Your task to perform on an android device: change the upload size in google photos Image 0: 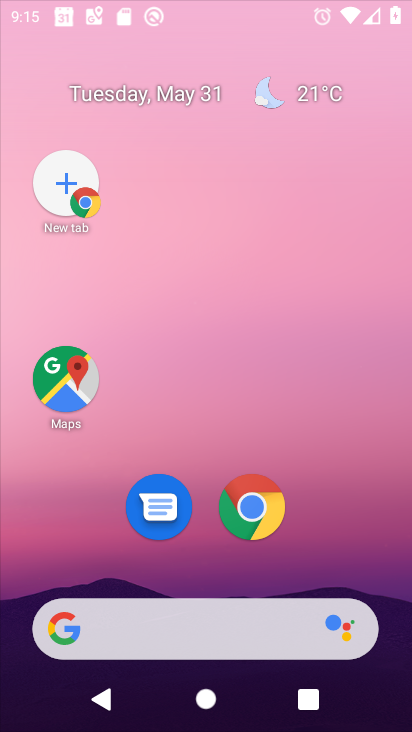
Step 0: drag from (218, 251) to (207, 109)
Your task to perform on an android device: change the upload size in google photos Image 1: 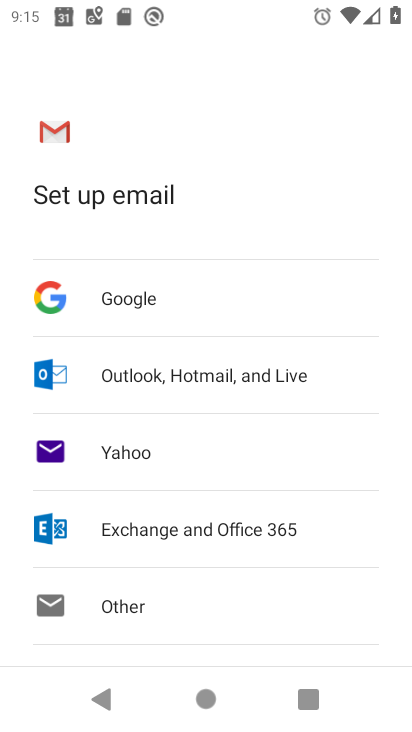
Step 1: press back button
Your task to perform on an android device: change the upload size in google photos Image 2: 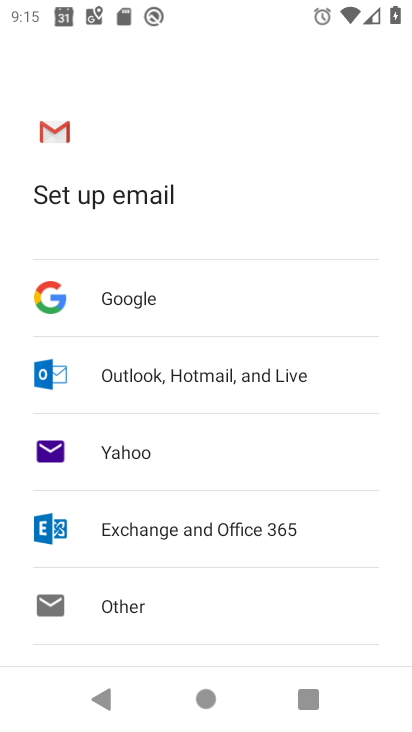
Step 2: press back button
Your task to perform on an android device: change the upload size in google photos Image 3: 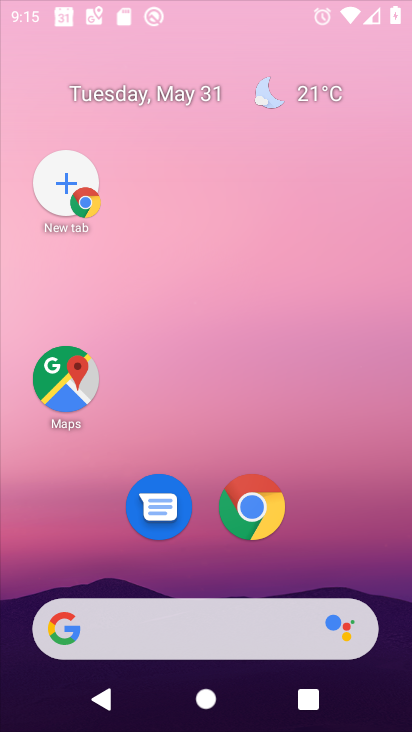
Step 3: press back button
Your task to perform on an android device: change the upload size in google photos Image 4: 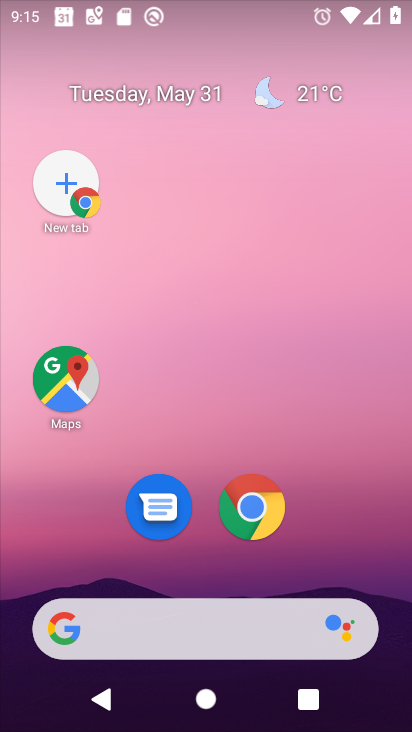
Step 4: drag from (233, 540) to (177, 119)
Your task to perform on an android device: change the upload size in google photos Image 5: 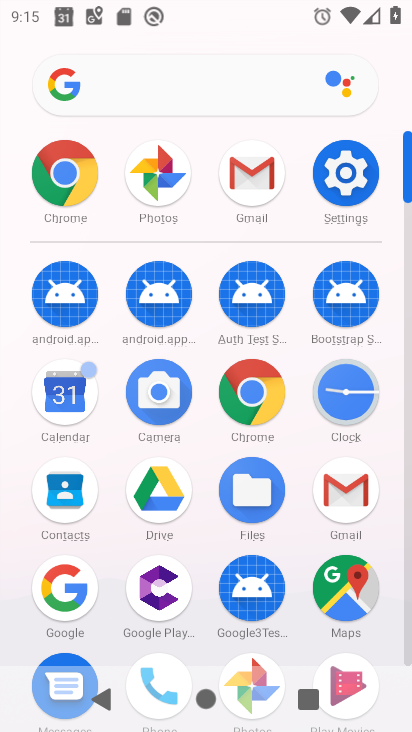
Step 5: drag from (312, 537) to (259, 22)
Your task to perform on an android device: change the upload size in google photos Image 6: 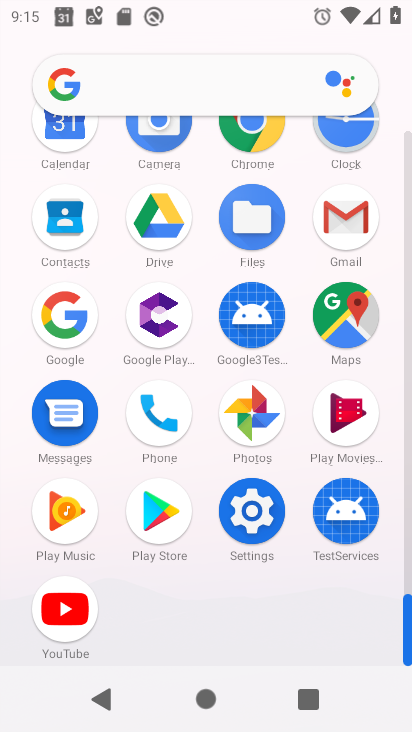
Step 6: click (254, 414)
Your task to perform on an android device: change the upload size in google photos Image 7: 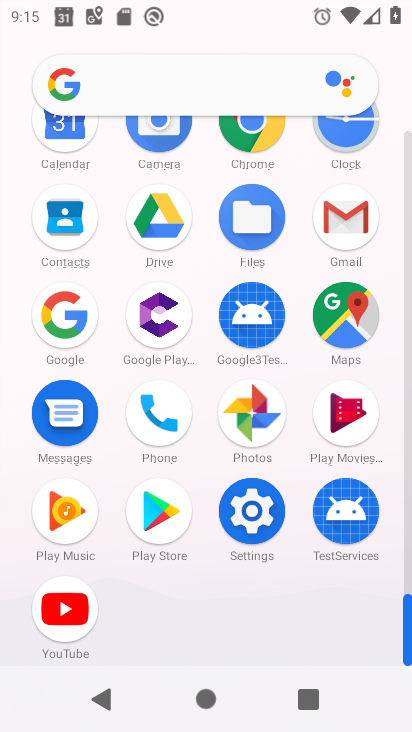
Step 7: click (254, 415)
Your task to perform on an android device: change the upload size in google photos Image 8: 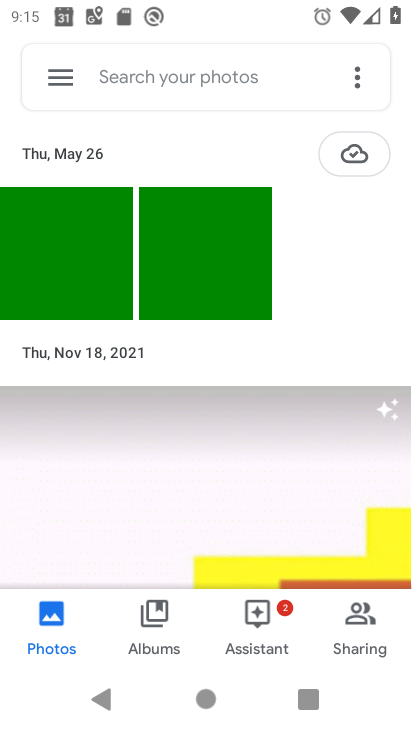
Step 8: press back button
Your task to perform on an android device: change the upload size in google photos Image 9: 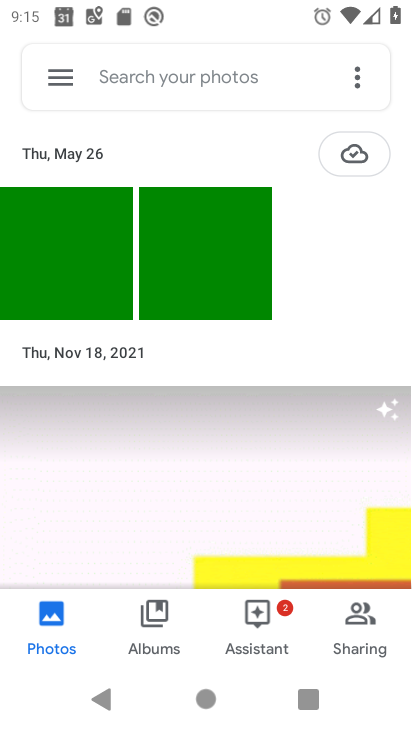
Step 9: press back button
Your task to perform on an android device: change the upload size in google photos Image 10: 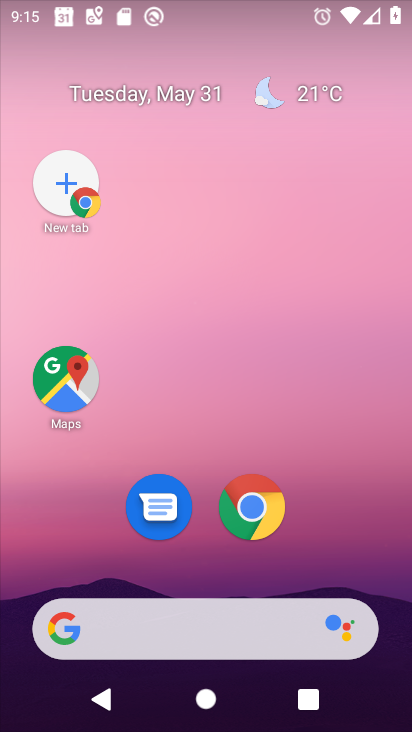
Step 10: drag from (251, 651) to (103, 0)
Your task to perform on an android device: change the upload size in google photos Image 11: 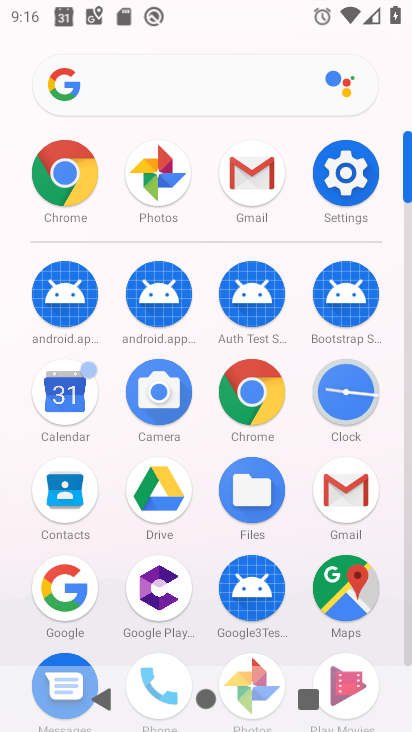
Step 11: drag from (325, 485) to (260, 67)
Your task to perform on an android device: change the upload size in google photos Image 12: 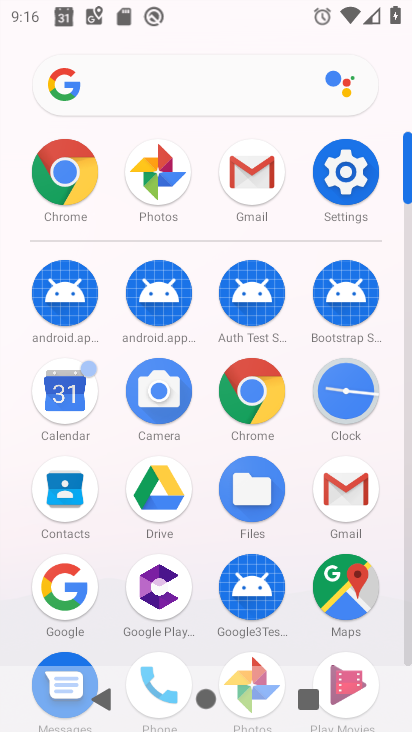
Step 12: click (153, 172)
Your task to perform on an android device: change the upload size in google photos Image 13: 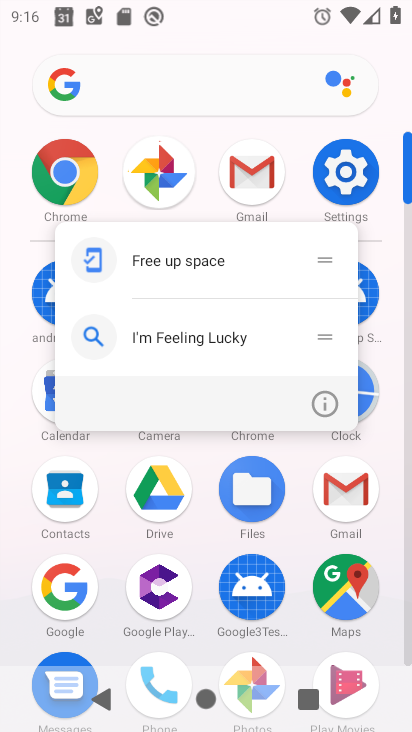
Step 13: click (168, 177)
Your task to perform on an android device: change the upload size in google photos Image 14: 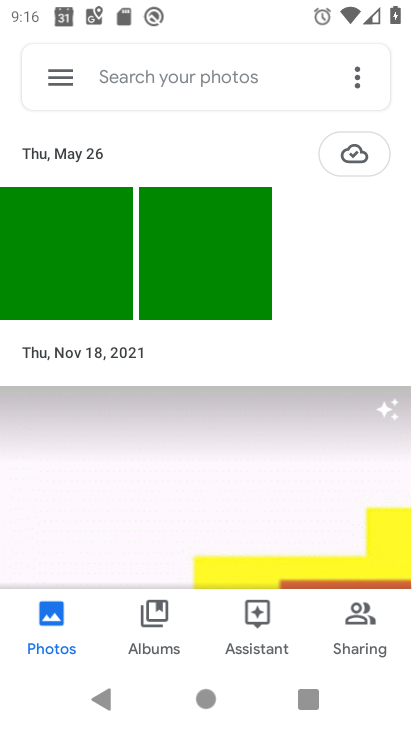
Step 14: click (52, 79)
Your task to perform on an android device: change the upload size in google photos Image 15: 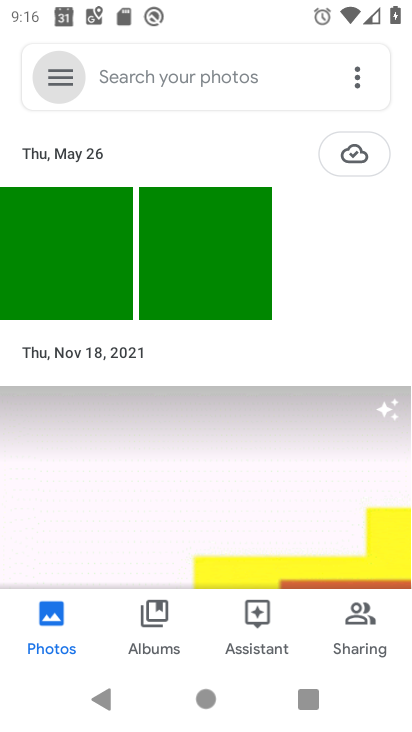
Step 15: click (56, 79)
Your task to perform on an android device: change the upload size in google photos Image 16: 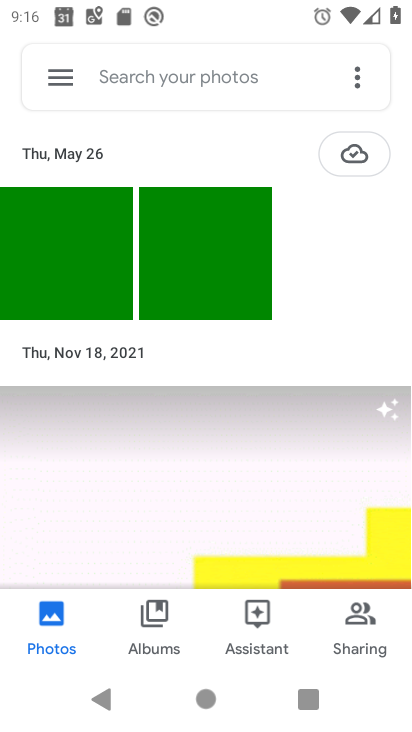
Step 16: click (55, 77)
Your task to perform on an android device: change the upload size in google photos Image 17: 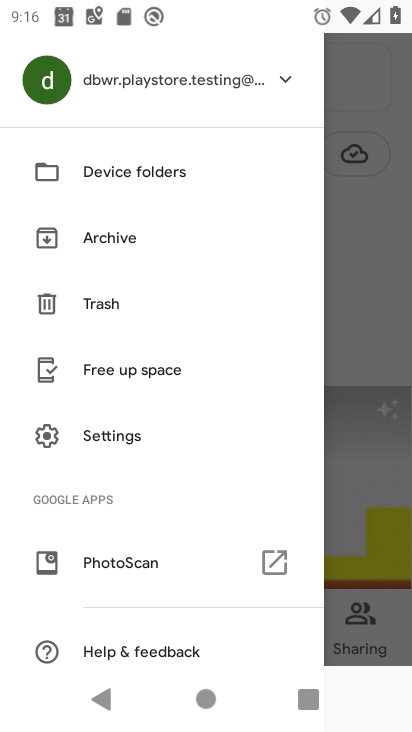
Step 17: click (103, 435)
Your task to perform on an android device: change the upload size in google photos Image 18: 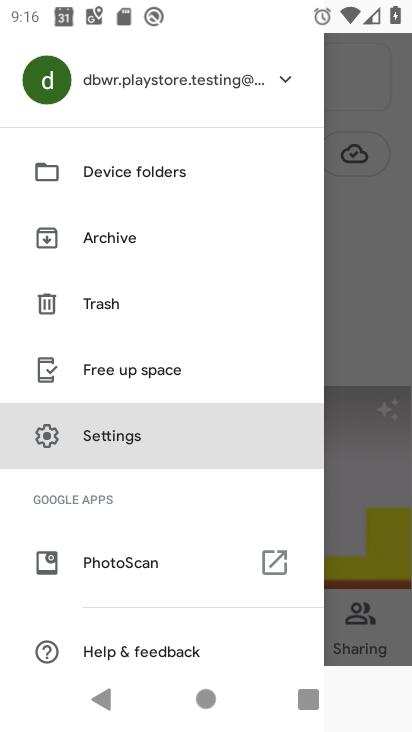
Step 18: click (105, 437)
Your task to perform on an android device: change the upload size in google photos Image 19: 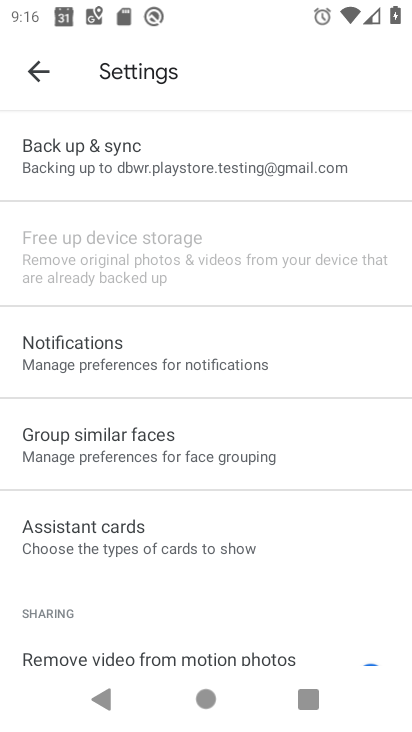
Step 19: drag from (106, 559) to (106, 71)
Your task to perform on an android device: change the upload size in google photos Image 20: 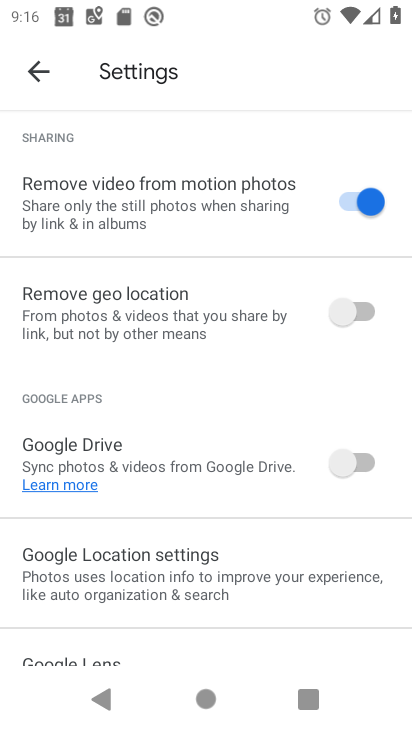
Step 20: drag from (122, 205) to (179, 542)
Your task to perform on an android device: change the upload size in google photos Image 21: 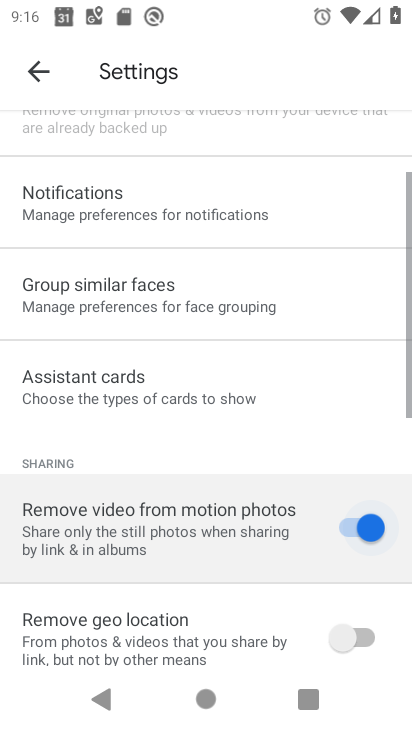
Step 21: drag from (190, 236) to (202, 634)
Your task to perform on an android device: change the upload size in google photos Image 22: 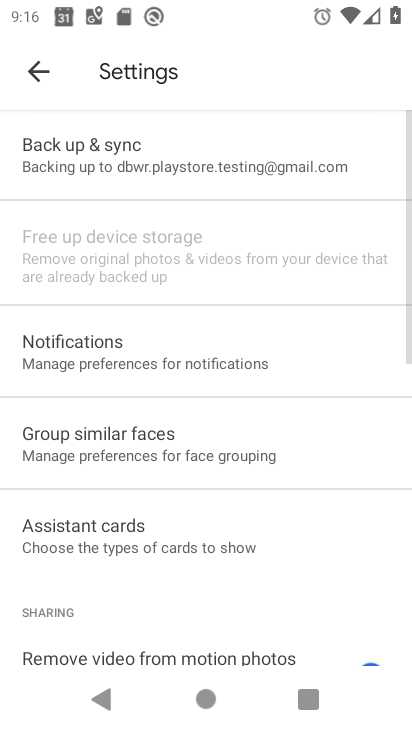
Step 22: drag from (97, 243) to (105, 349)
Your task to perform on an android device: change the upload size in google photos Image 23: 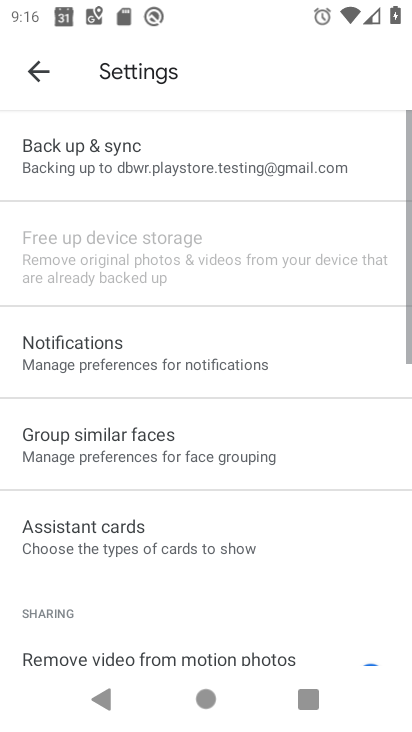
Step 23: click (65, 157)
Your task to perform on an android device: change the upload size in google photos Image 24: 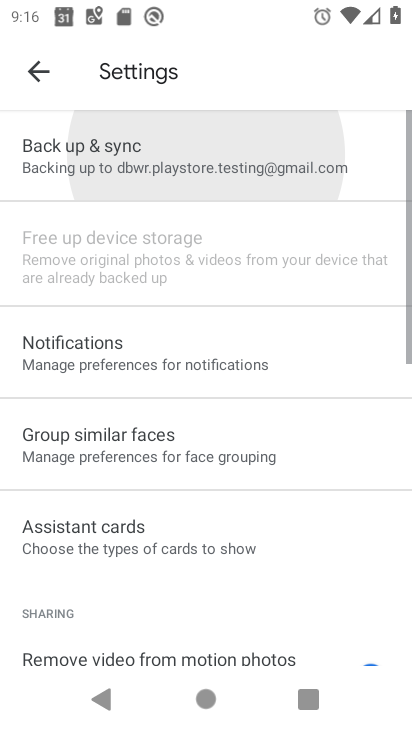
Step 24: click (65, 159)
Your task to perform on an android device: change the upload size in google photos Image 25: 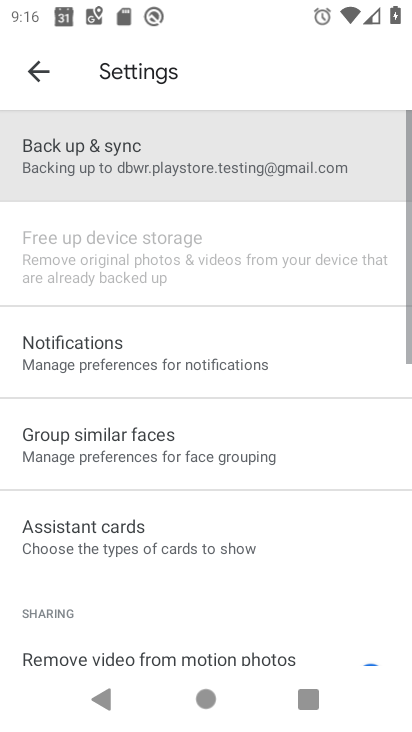
Step 25: click (65, 159)
Your task to perform on an android device: change the upload size in google photos Image 26: 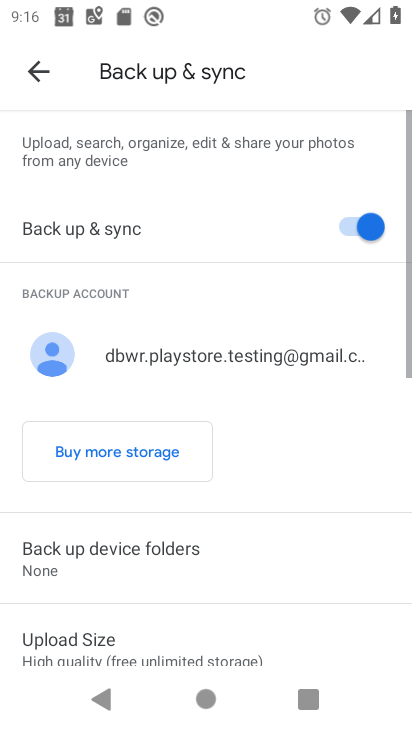
Step 26: click (61, 154)
Your task to perform on an android device: change the upload size in google photos Image 27: 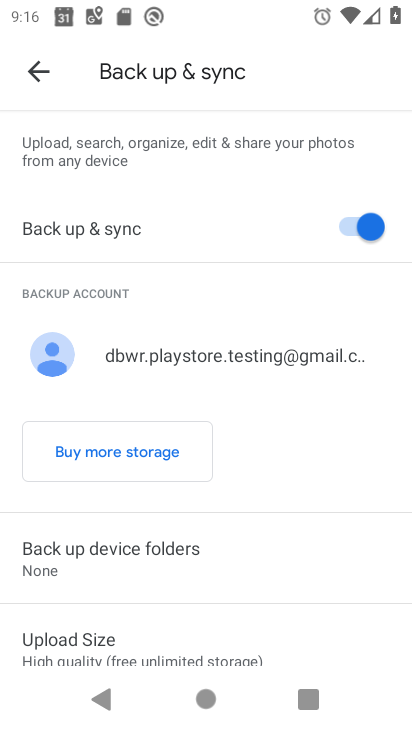
Step 27: drag from (154, 585) to (134, 205)
Your task to perform on an android device: change the upload size in google photos Image 28: 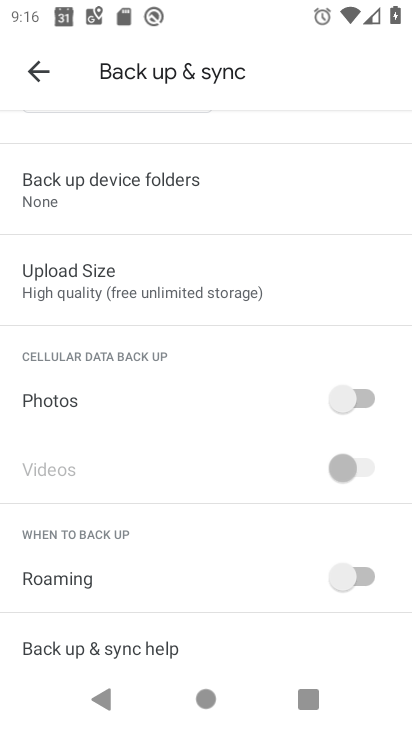
Step 28: click (56, 283)
Your task to perform on an android device: change the upload size in google photos Image 29: 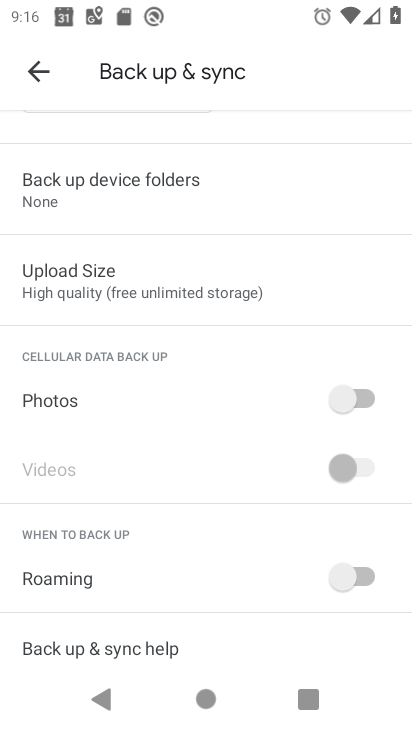
Step 29: click (56, 283)
Your task to perform on an android device: change the upload size in google photos Image 30: 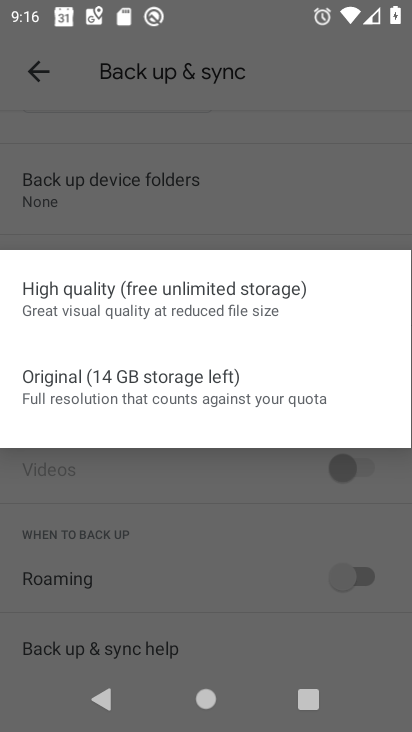
Step 30: click (97, 294)
Your task to perform on an android device: change the upload size in google photos Image 31: 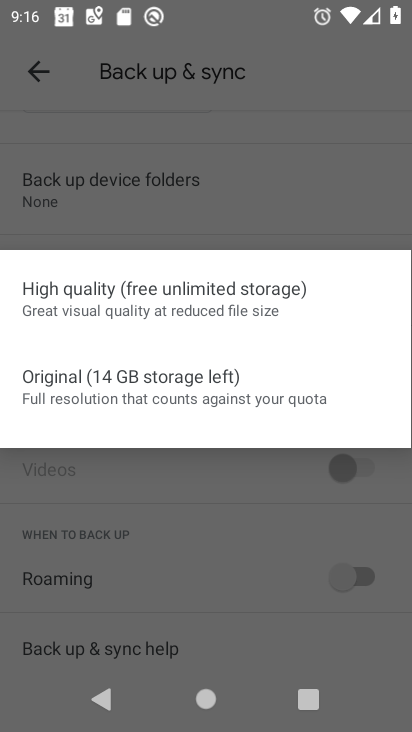
Step 31: click (97, 294)
Your task to perform on an android device: change the upload size in google photos Image 32: 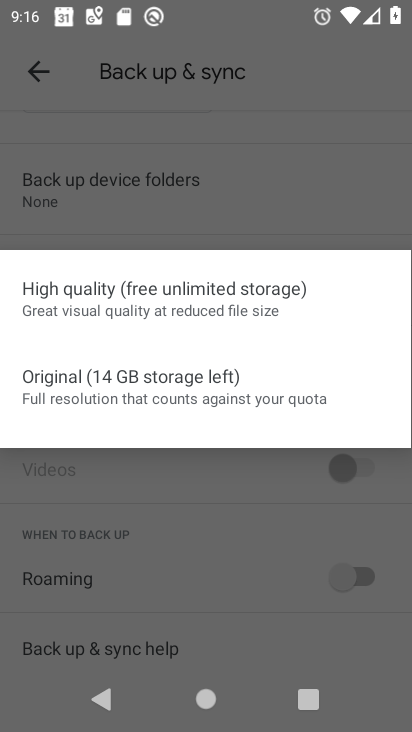
Step 32: click (108, 294)
Your task to perform on an android device: change the upload size in google photos Image 33: 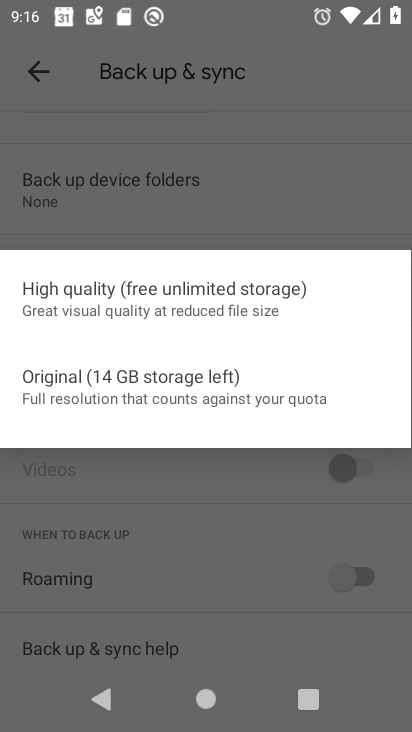
Step 33: click (109, 294)
Your task to perform on an android device: change the upload size in google photos Image 34: 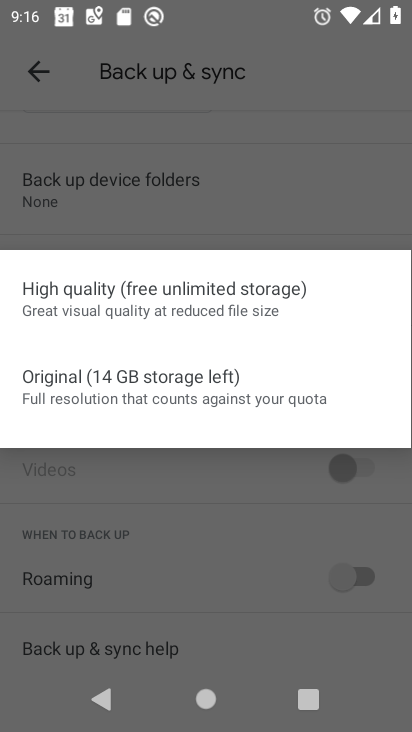
Step 34: task complete